Your task to perform on an android device: open device folders in google photos Image 0: 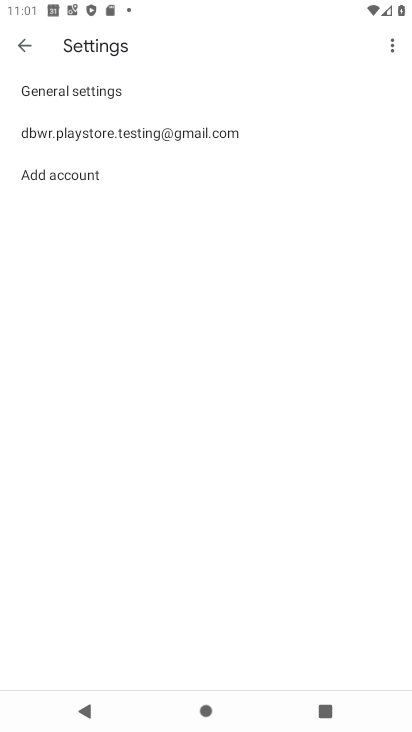
Step 0: press home button
Your task to perform on an android device: open device folders in google photos Image 1: 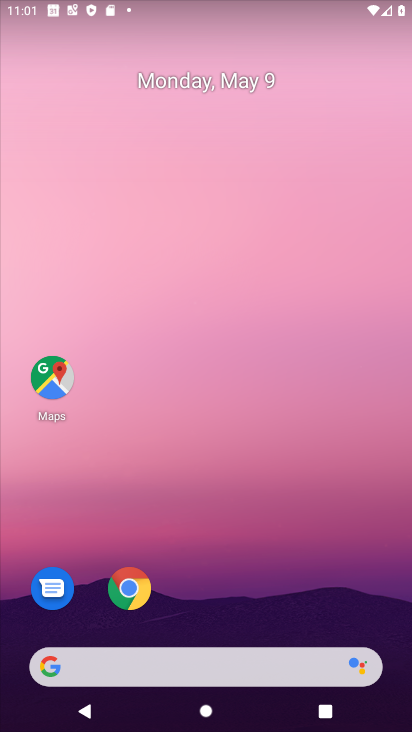
Step 1: drag from (203, 635) to (25, 694)
Your task to perform on an android device: open device folders in google photos Image 2: 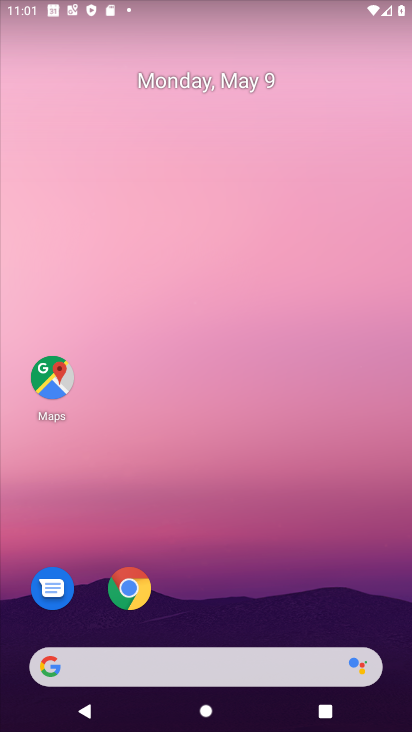
Step 2: drag from (200, 628) to (154, 20)
Your task to perform on an android device: open device folders in google photos Image 3: 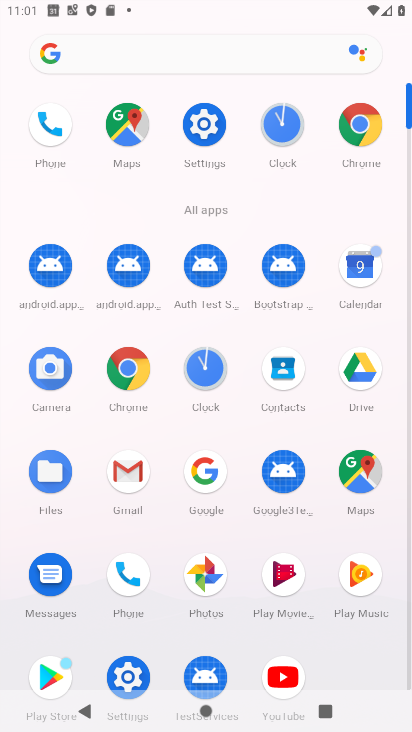
Step 3: click (212, 573)
Your task to perform on an android device: open device folders in google photos Image 4: 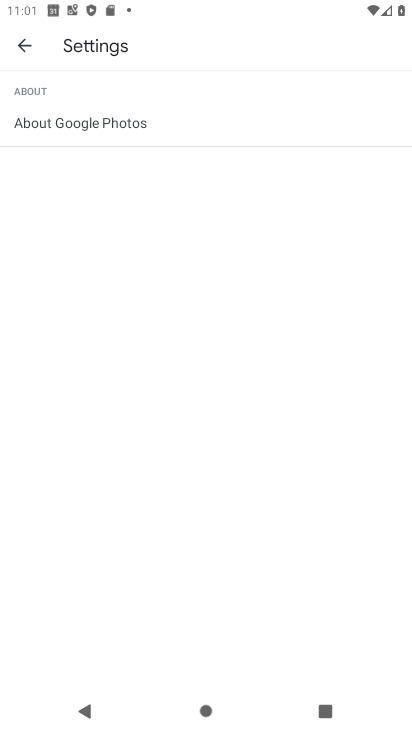
Step 4: click (24, 45)
Your task to perform on an android device: open device folders in google photos Image 5: 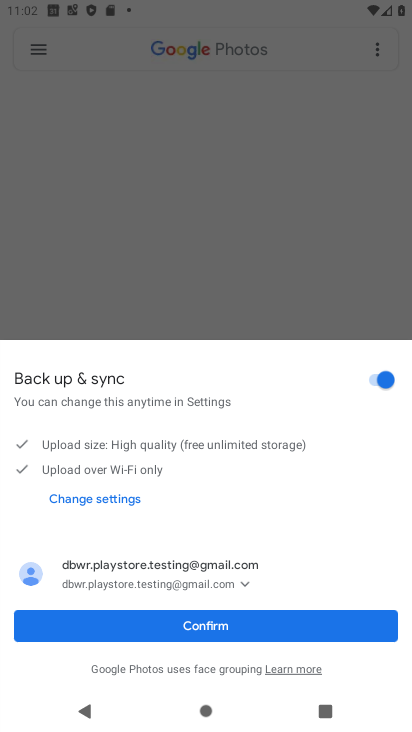
Step 5: click (158, 620)
Your task to perform on an android device: open device folders in google photos Image 6: 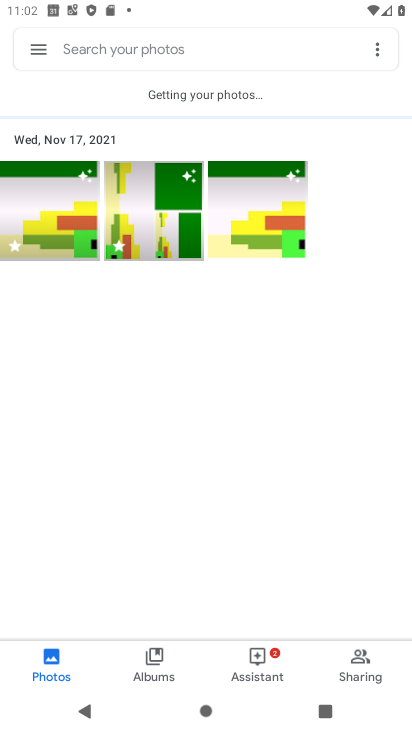
Step 6: click (35, 46)
Your task to perform on an android device: open device folders in google photos Image 7: 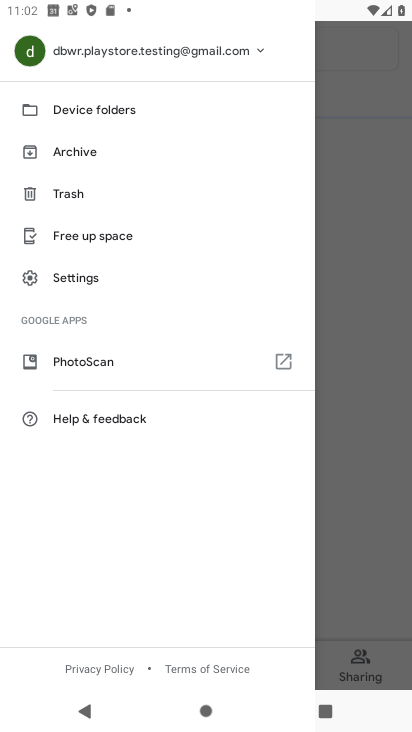
Step 7: click (82, 121)
Your task to perform on an android device: open device folders in google photos Image 8: 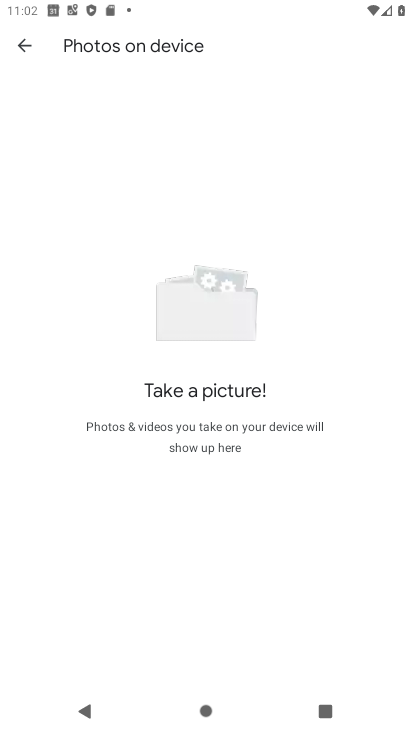
Step 8: task complete